Your task to perform on an android device: Search for seafood restaurants on Google Maps Image 0: 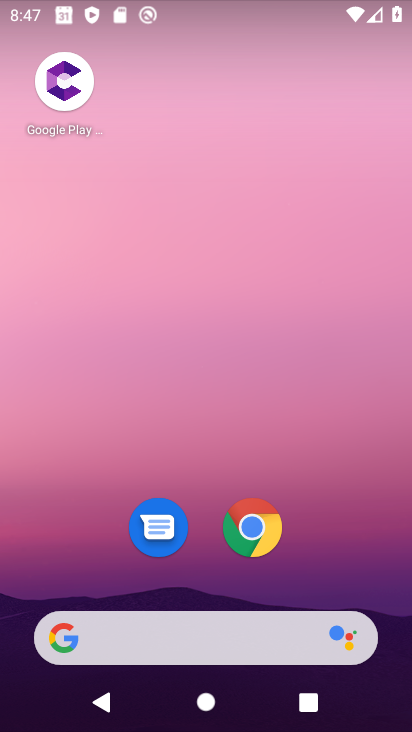
Step 0: drag from (180, 589) to (205, 118)
Your task to perform on an android device: Search for seafood restaurants on Google Maps Image 1: 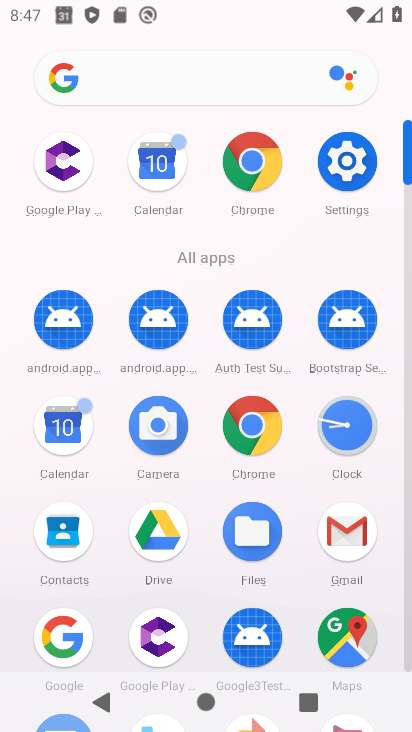
Step 1: click (359, 641)
Your task to perform on an android device: Search for seafood restaurants on Google Maps Image 2: 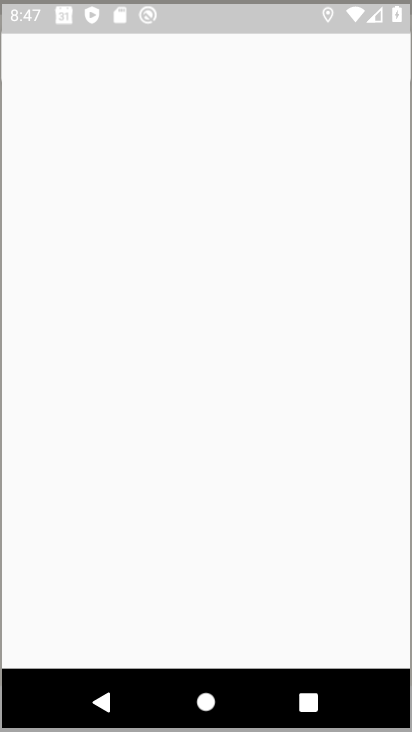
Step 2: click (128, 58)
Your task to perform on an android device: Search for seafood restaurants on Google Maps Image 3: 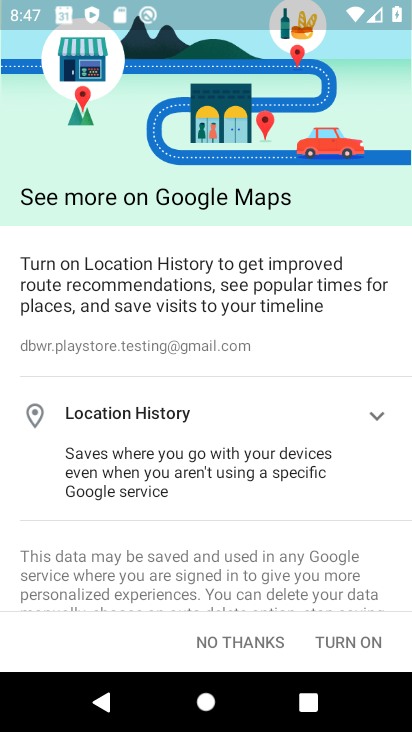
Step 3: click (252, 633)
Your task to perform on an android device: Search for seafood restaurants on Google Maps Image 4: 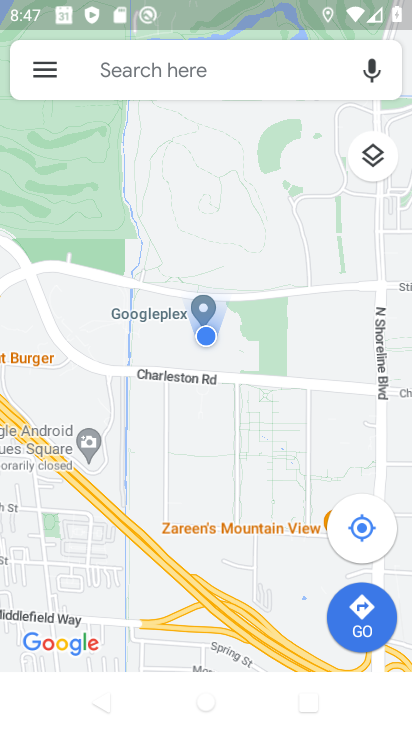
Step 4: click (194, 65)
Your task to perform on an android device: Search for seafood restaurants on Google Maps Image 5: 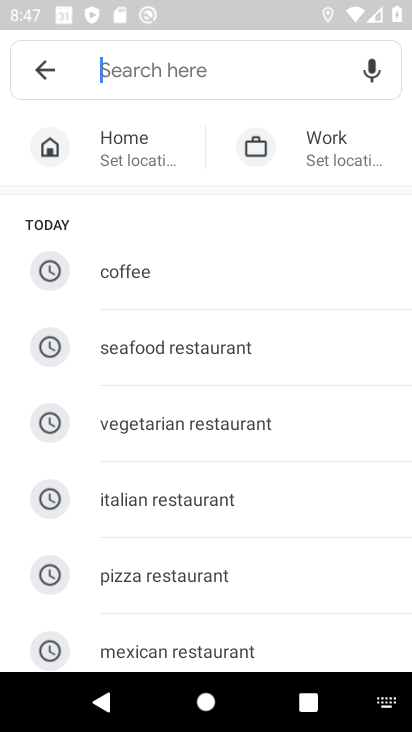
Step 5: type "seafood restaurants"
Your task to perform on an android device: Search for seafood restaurants on Google Maps Image 6: 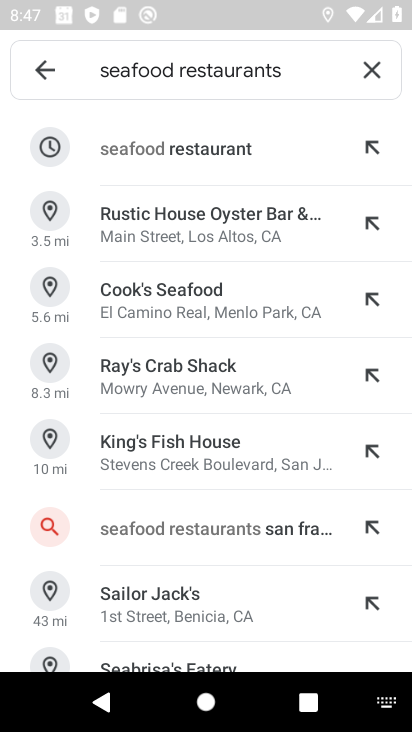
Step 6: click (226, 141)
Your task to perform on an android device: Search for seafood restaurants on Google Maps Image 7: 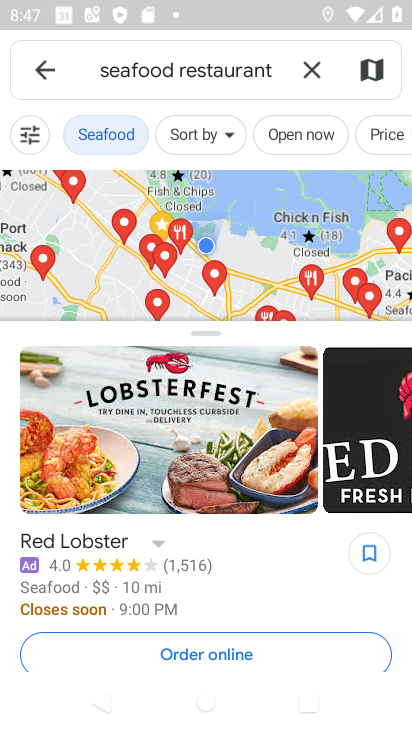
Step 7: task complete